Your task to perform on an android device: Go to location settings Image 0: 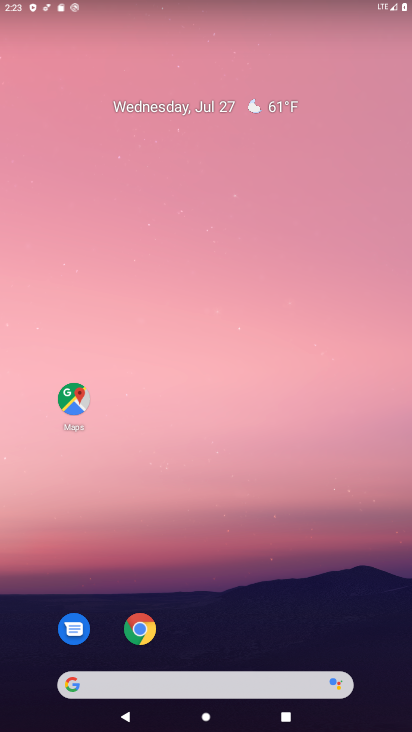
Step 0: drag from (191, 687) to (331, 4)
Your task to perform on an android device: Go to location settings Image 1: 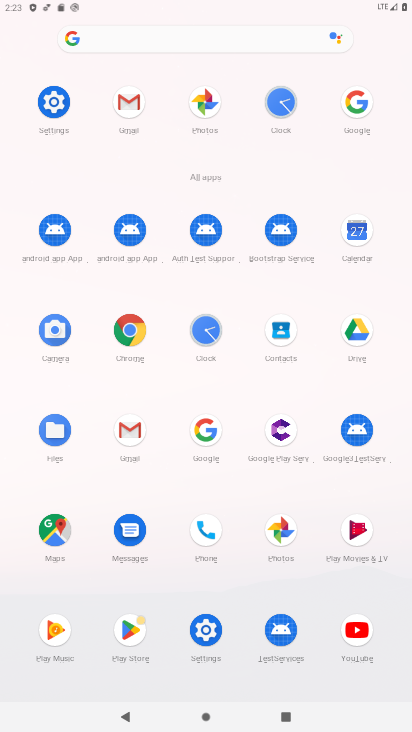
Step 1: click (54, 102)
Your task to perform on an android device: Go to location settings Image 2: 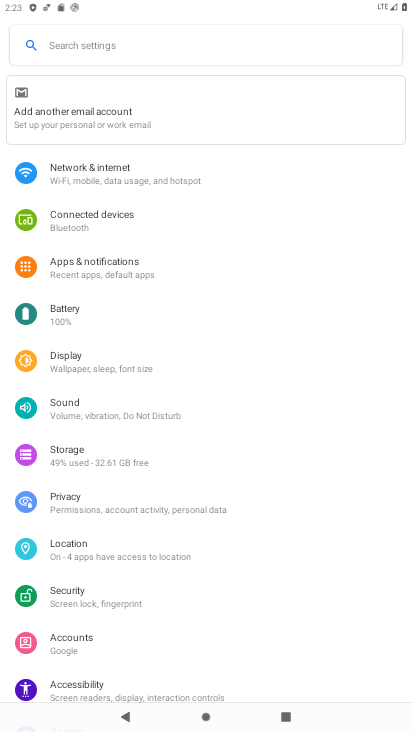
Step 2: click (73, 549)
Your task to perform on an android device: Go to location settings Image 3: 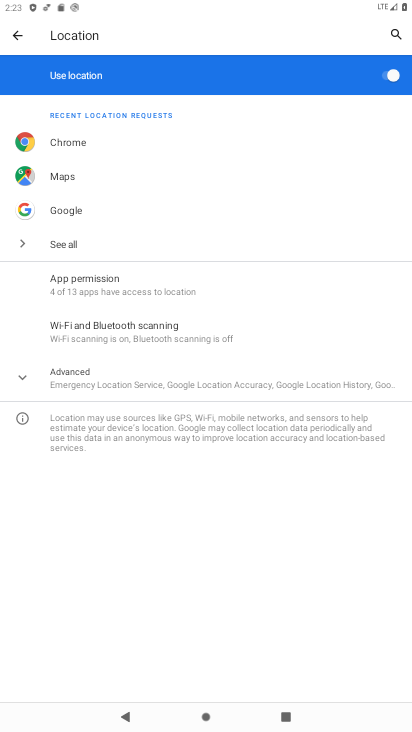
Step 3: task complete